Your task to perform on an android device: toggle improve location accuracy Image 0: 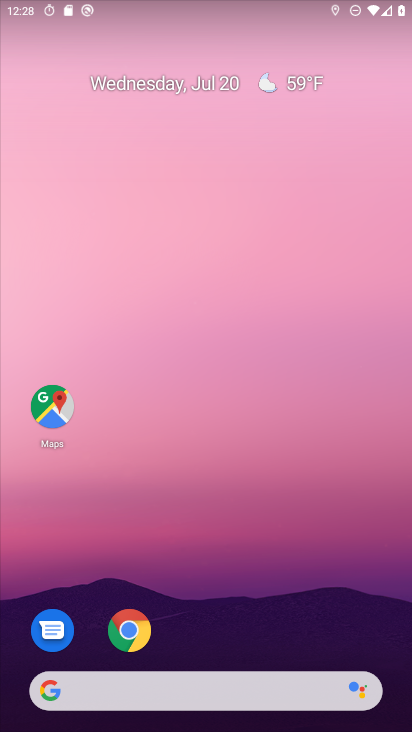
Step 0: drag from (264, 704) to (266, 41)
Your task to perform on an android device: toggle improve location accuracy Image 1: 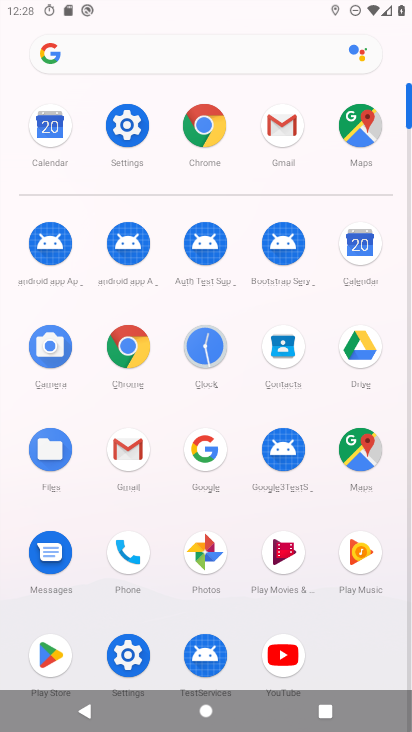
Step 1: click (122, 116)
Your task to perform on an android device: toggle improve location accuracy Image 2: 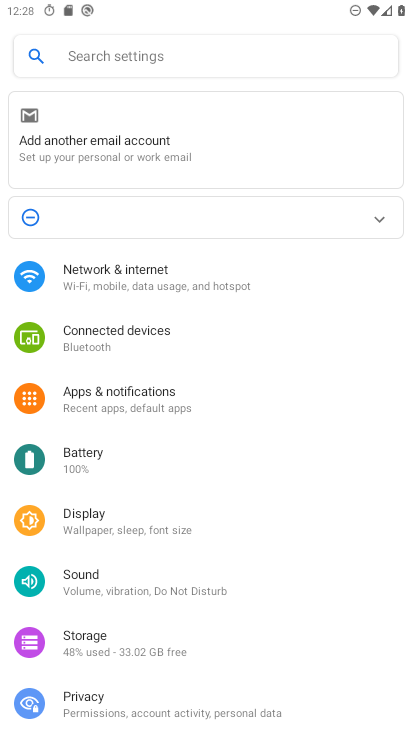
Step 2: drag from (181, 634) to (183, 169)
Your task to perform on an android device: toggle improve location accuracy Image 3: 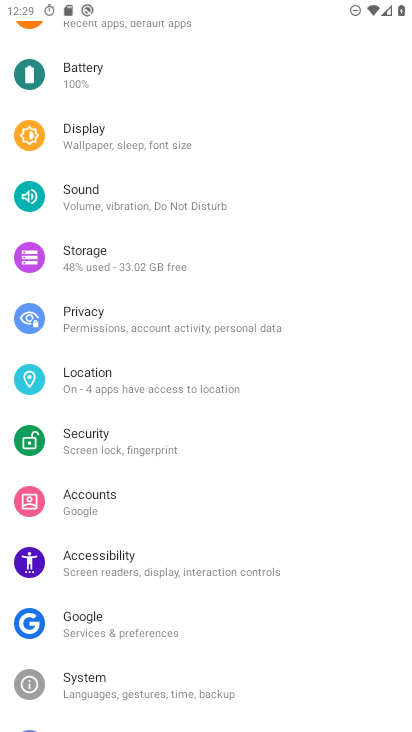
Step 3: click (106, 385)
Your task to perform on an android device: toggle improve location accuracy Image 4: 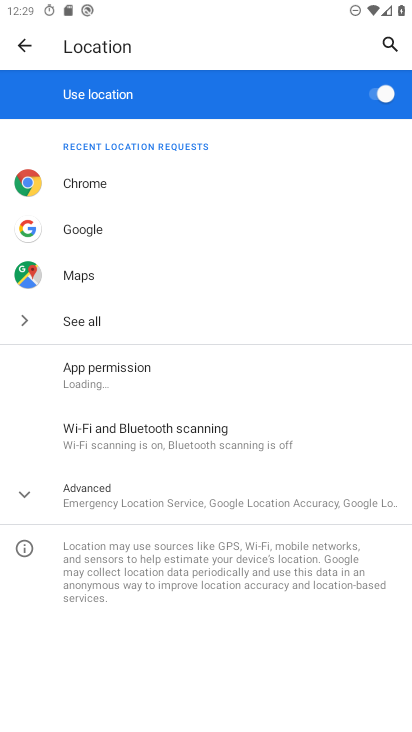
Step 4: click (378, 100)
Your task to perform on an android device: toggle improve location accuracy Image 5: 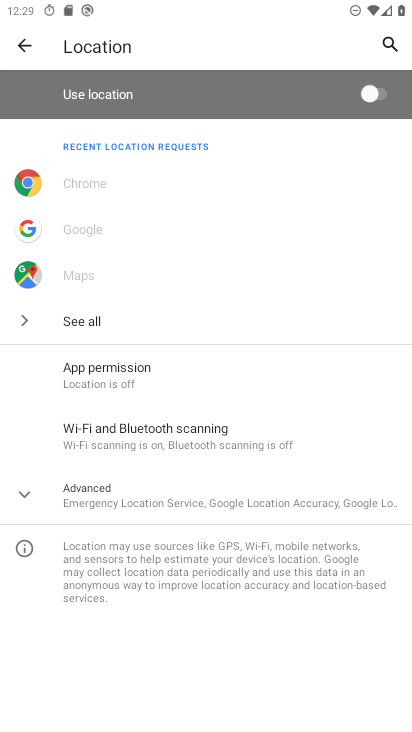
Step 5: task complete